Your task to perform on an android device: turn off sleep mode Image 0: 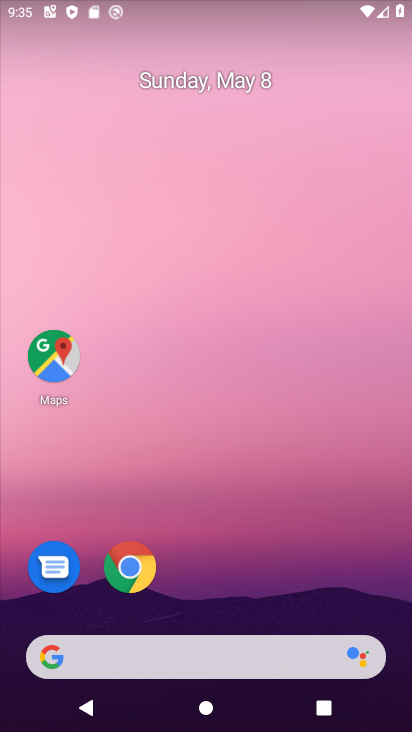
Step 0: drag from (314, 582) to (71, 65)
Your task to perform on an android device: turn off sleep mode Image 1: 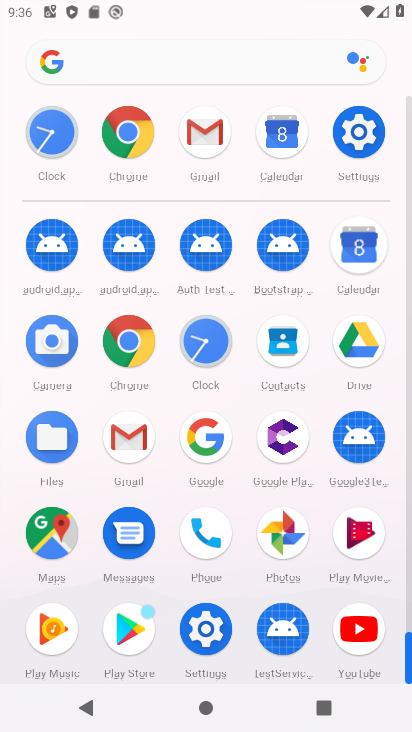
Step 1: click (365, 133)
Your task to perform on an android device: turn off sleep mode Image 2: 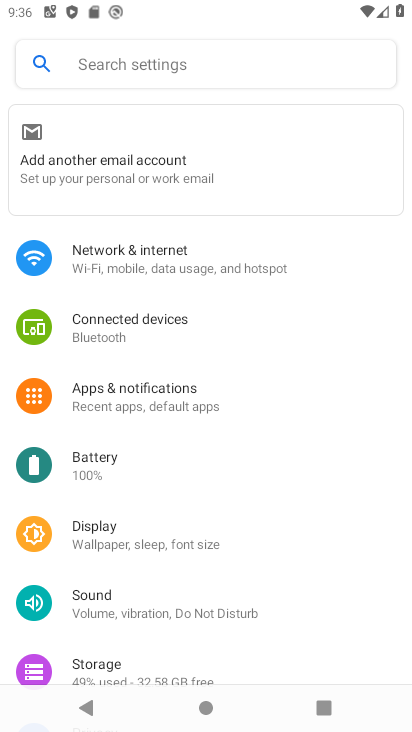
Step 2: task complete